Your task to perform on an android device: toggle improve location accuracy Image 0: 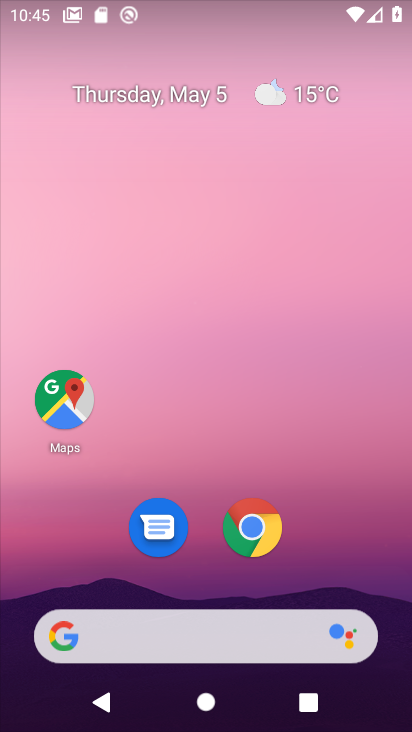
Step 0: drag from (178, 446) to (176, 63)
Your task to perform on an android device: toggle improve location accuracy Image 1: 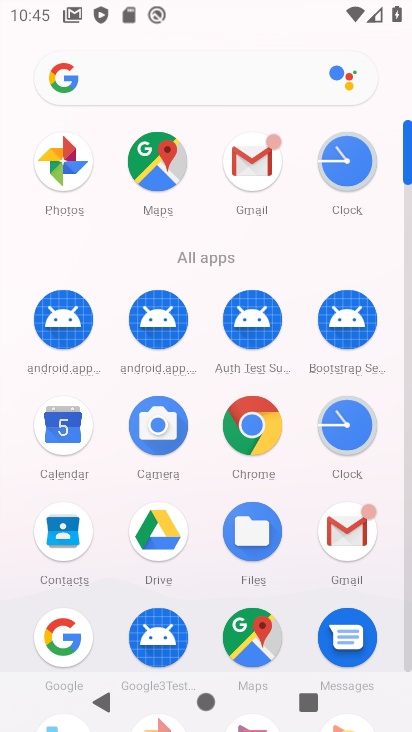
Step 1: drag from (217, 572) to (246, 156)
Your task to perform on an android device: toggle improve location accuracy Image 2: 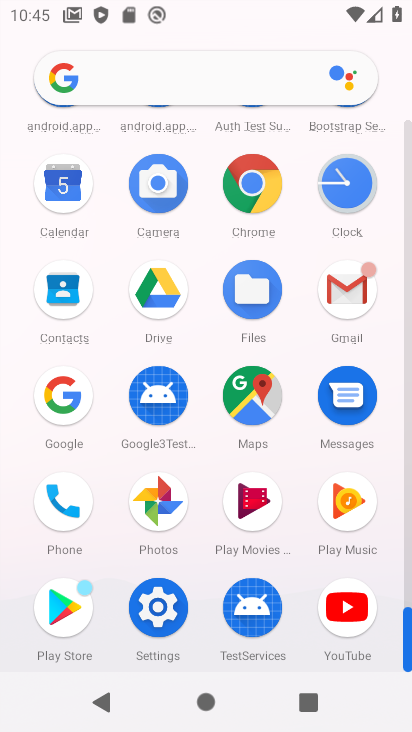
Step 2: click (164, 606)
Your task to perform on an android device: toggle improve location accuracy Image 3: 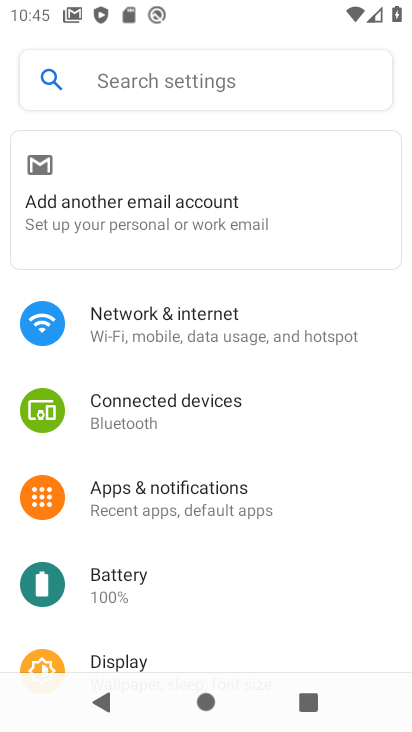
Step 3: drag from (190, 546) to (242, 193)
Your task to perform on an android device: toggle improve location accuracy Image 4: 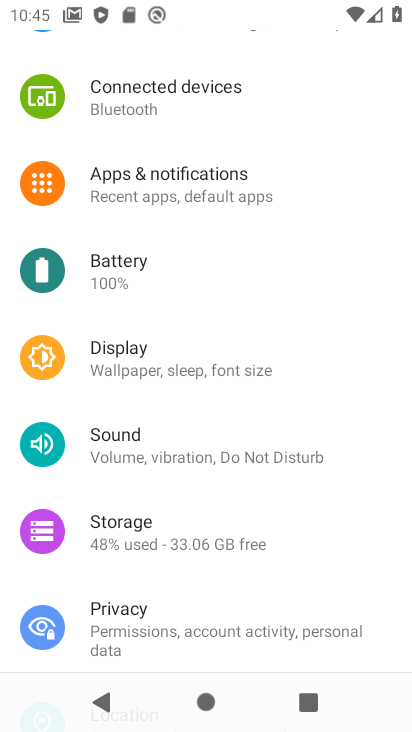
Step 4: drag from (152, 583) to (227, 251)
Your task to perform on an android device: toggle improve location accuracy Image 5: 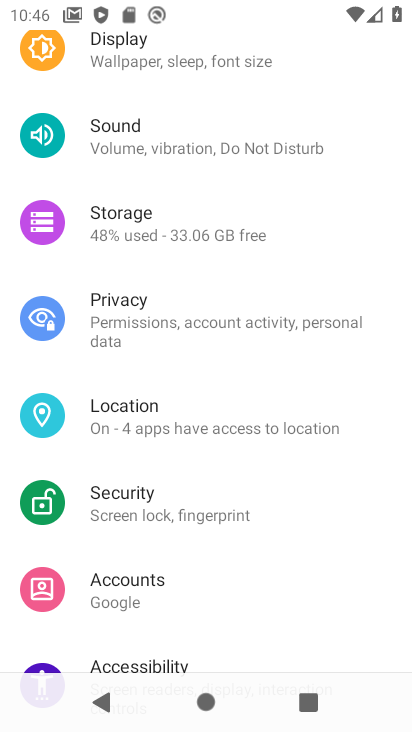
Step 5: click (158, 418)
Your task to perform on an android device: toggle improve location accuracy Image 6: 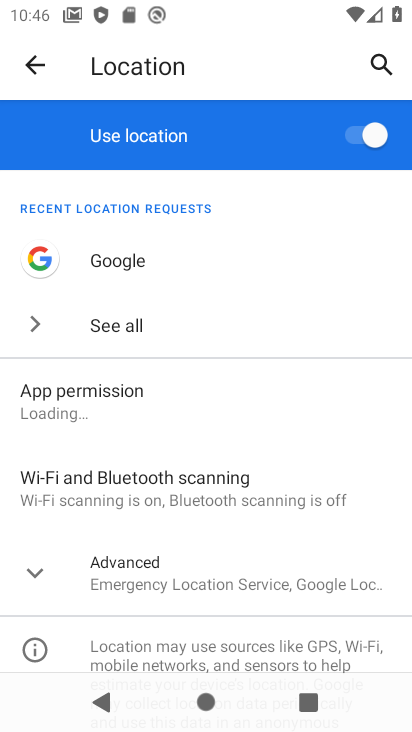
Step 6: click (133, 589)
Your task to perform on an android device: toggle improve location accuracy Image 7: 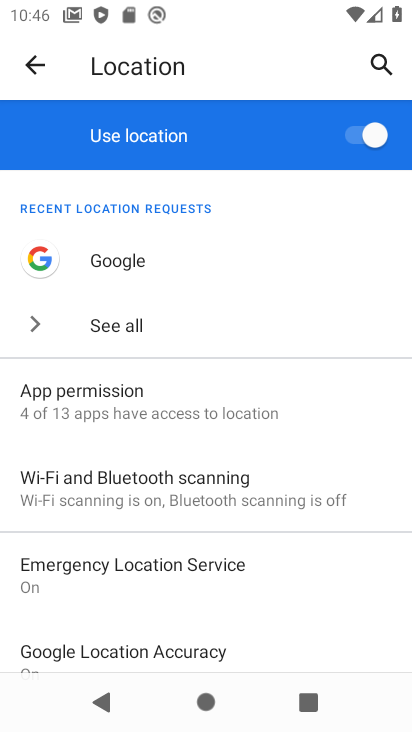
Step 7: drag from (180, 607) to (209, 375)
Your task to perform on an android device: toggle improve location accuracy Image 8: 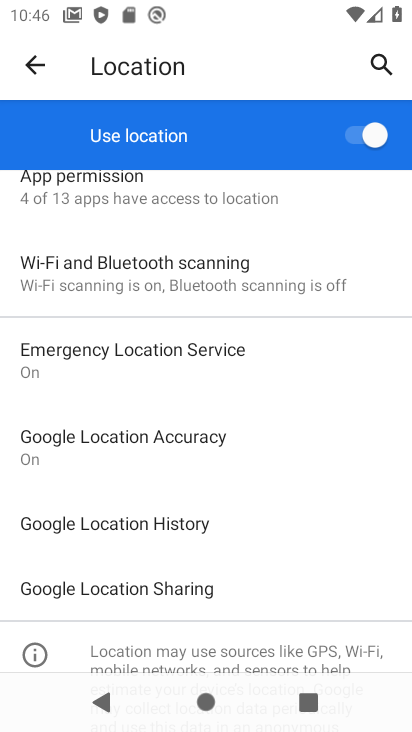
Step 8: click (132, 452)
Your task to perform on an android device: toggle improve location accuracy Image 9: 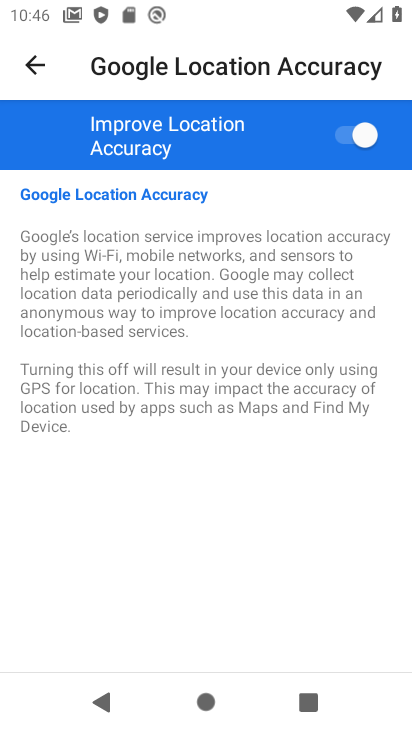
Step 9: click (327, 130)
Your task to perform on an android device: toggle improve location accuracy Image 10: 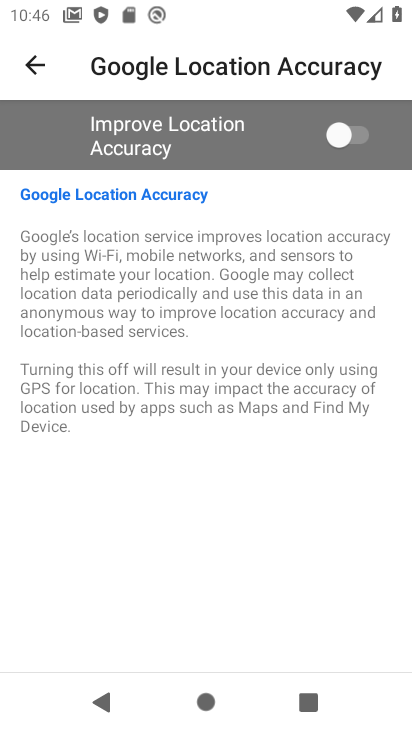
Step 10: task complete